Your task to perform on an android device: Go to display settings Image 0: 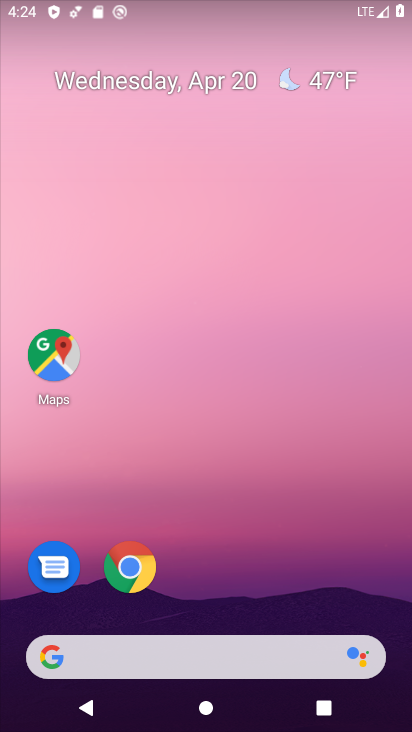
Step 0: drag from (307, 435) to (239, 4)
Your task to perform on an android device: Go to display settings Image 1: 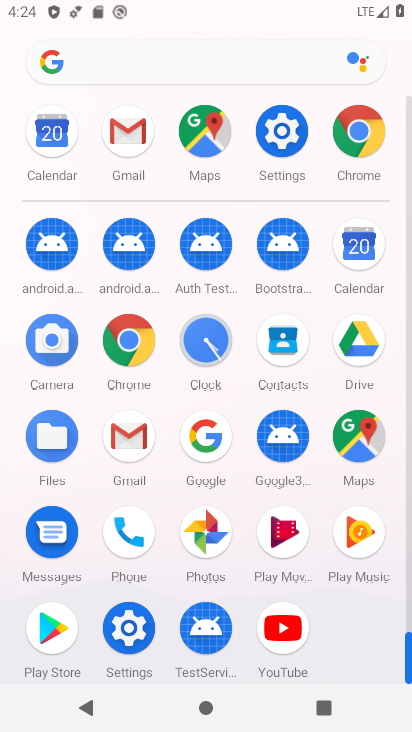
Step 1: drag from (12, 485) to (5, 293)
Your task to perform on an android device: Go to display settings Image 2: 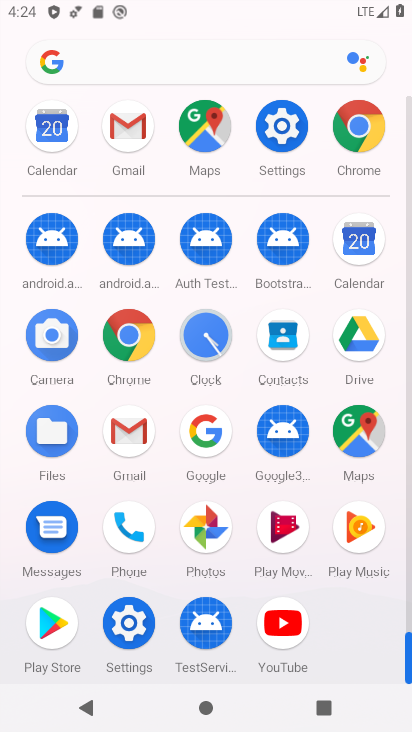
Step 2: click (128, 618)
Your task to perform on an android device: Go to display settings Image 3: 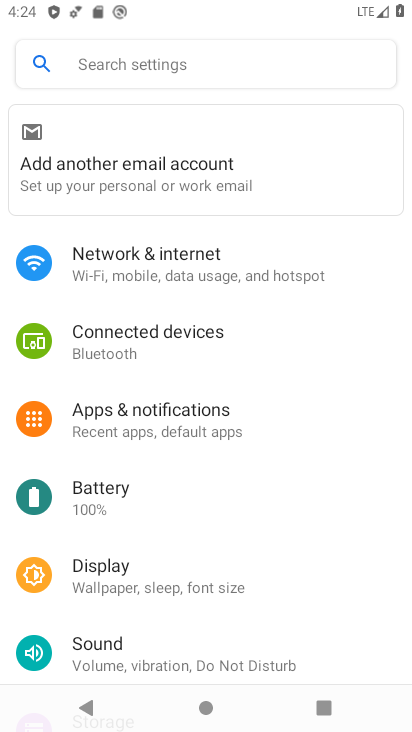
Step 3: click (114, 580)
Your task to perform on an android device: Go to display settings Image 4: 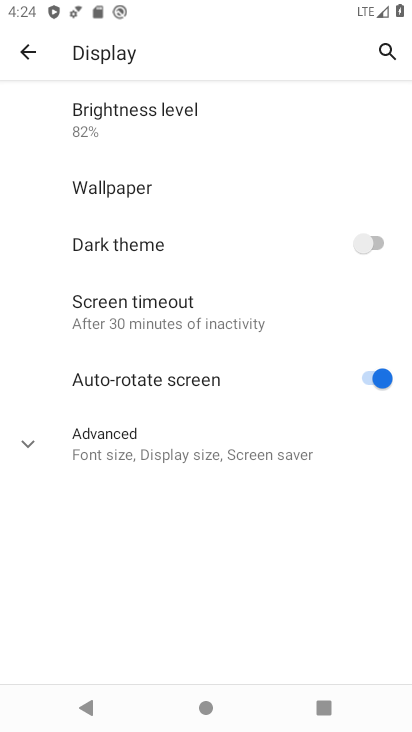
Step 4: click (31, 436)
Your task to perform on an android device: Go to display settings Image 5: 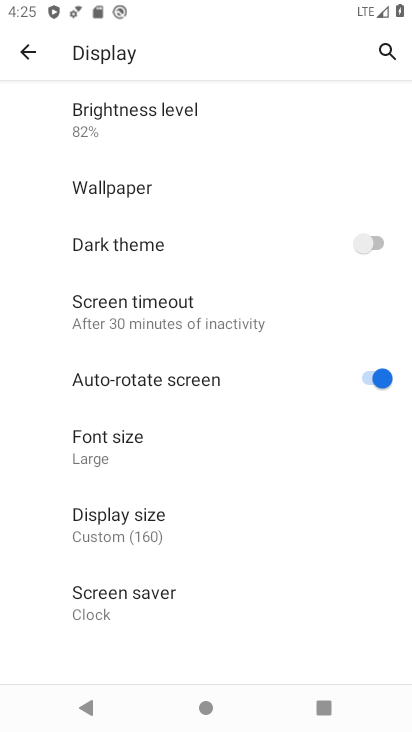
Step 5: task complete